Your task to perform on an android device: uninstall "Spotify" Image 0: 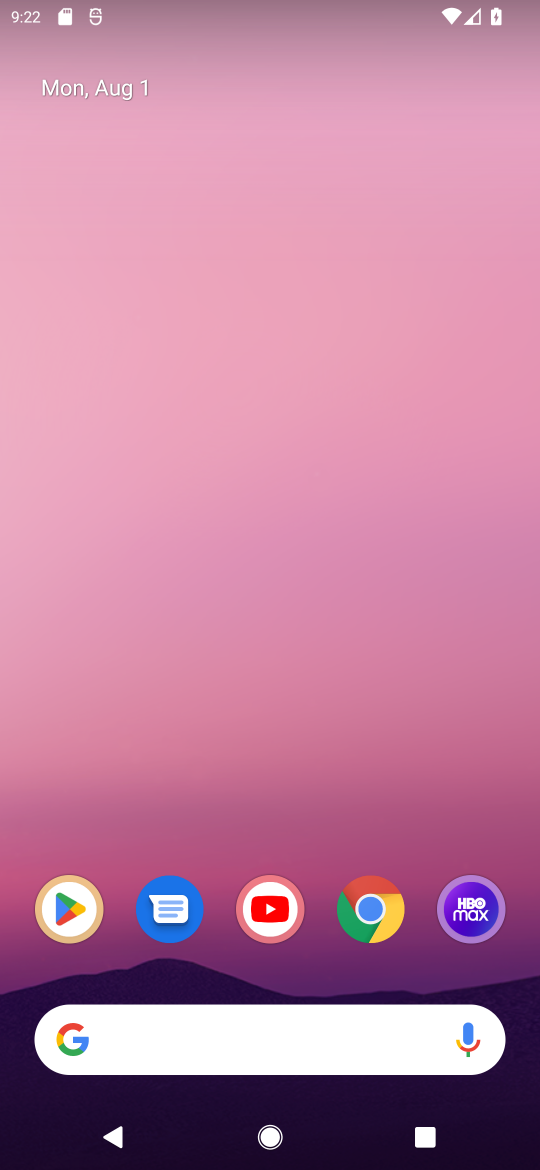
Step 0: click (72, 903)
Your task to perform on an android device: uninstall "Spotify" Image 1: 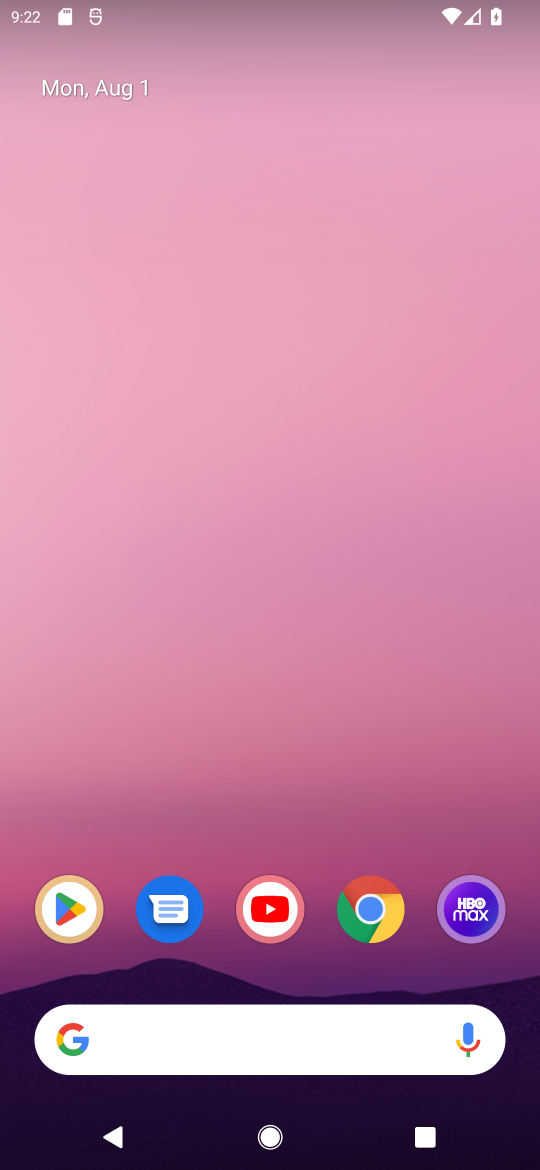
Step 1: click (49, 910)
Your task to perform on an android device: uninstall "Spotify" Image 2: 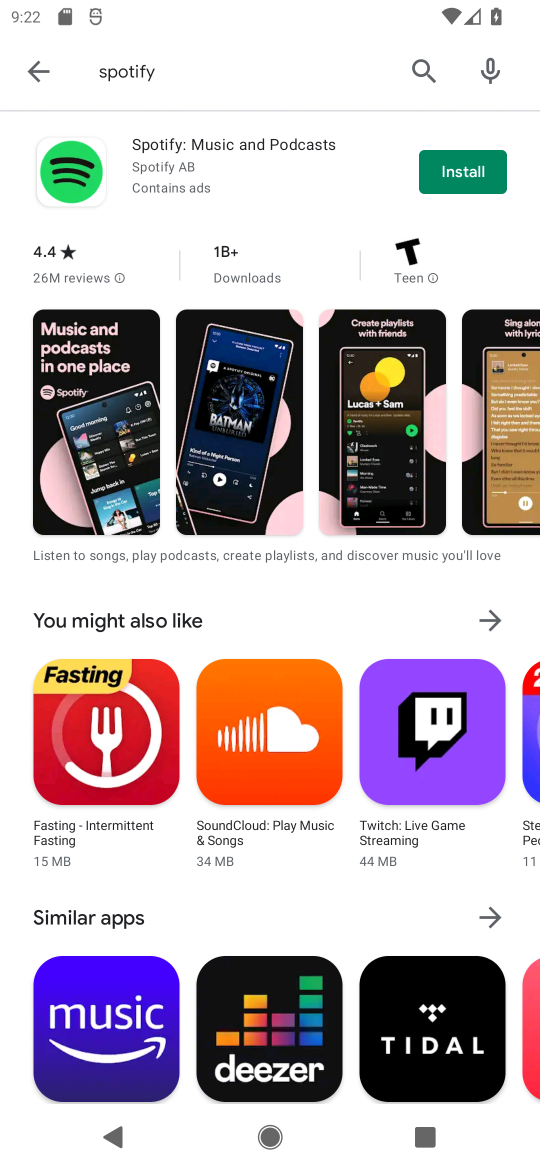
Step 2: task complete